Your task to perform on an android device: Open Wikipedia Image 0: 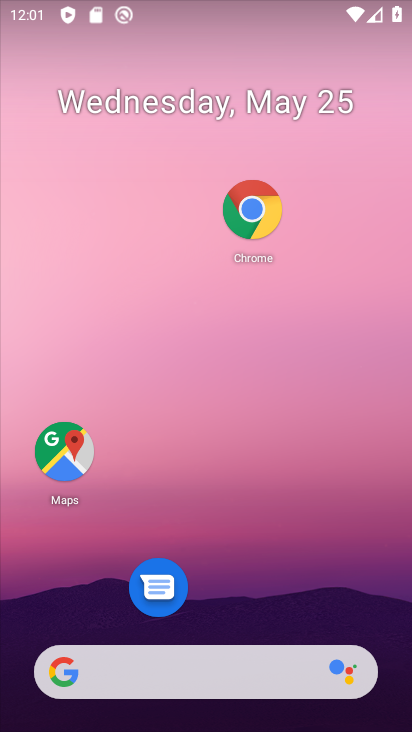
Step 0: press home button
Your task to perform on an android device: Open Wikipedia Image 1: 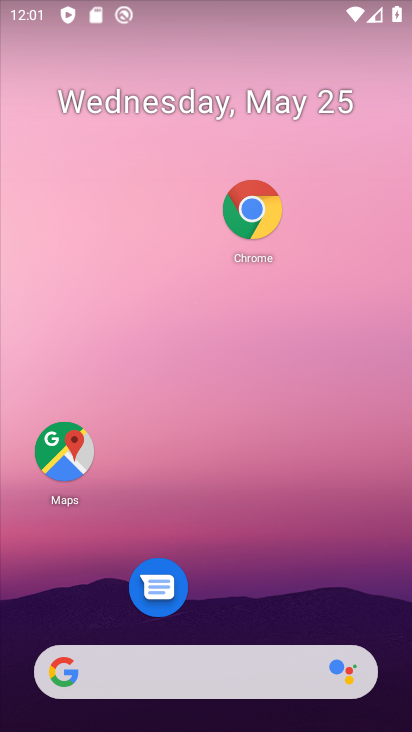
Step 1: drag from (246, 619) to (260, 288)
Your task to perform on an android device: Open Wikipedia Image 2: 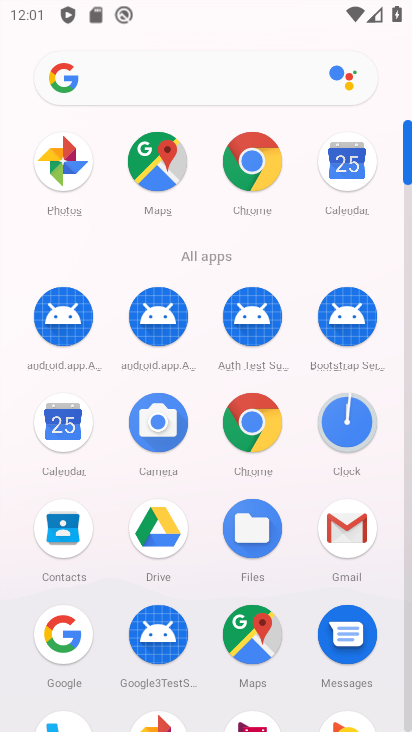
Step 2: click (248, 153)
Your task to perform on an android device: Open Wikipedia Image 3: 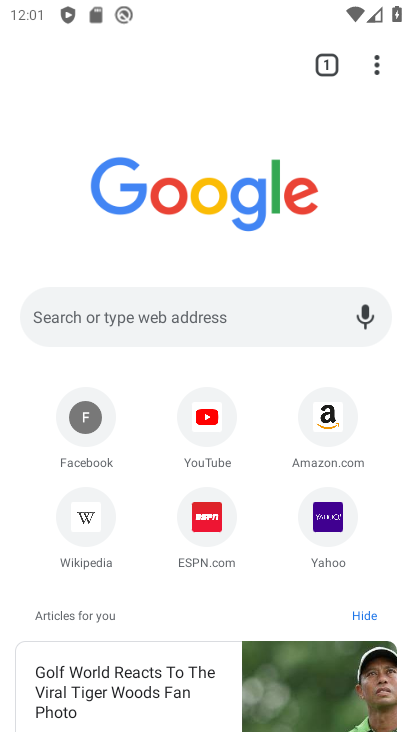
Step 3: click (82, 514)
Your task to perform on an android device: Open Wikipedia Image 4: 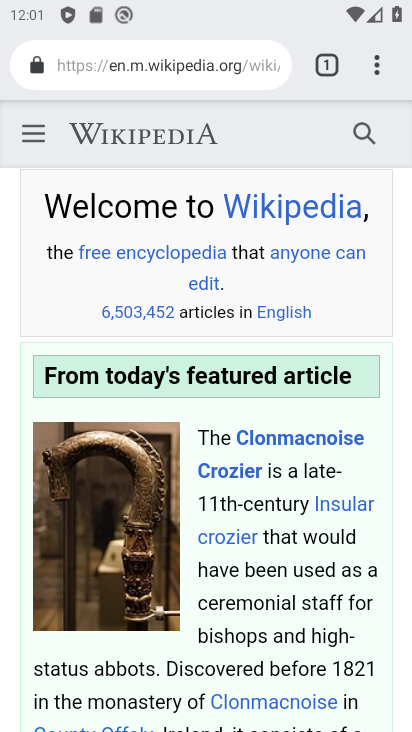
Step 4: task complete